Your task to perform on an android device: Find coffee shops on Maps Image 0: 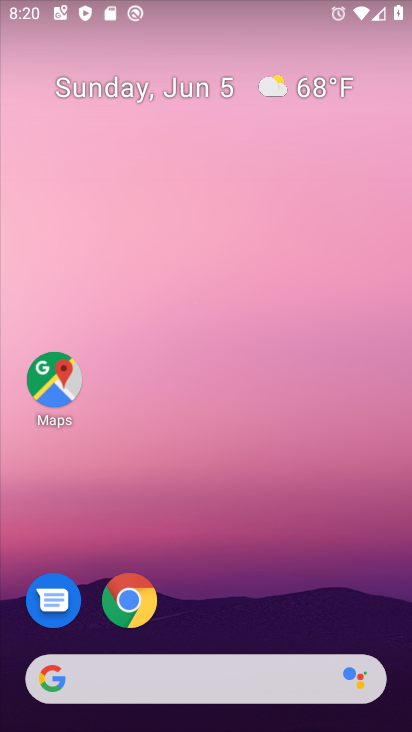
Step 0: drag from (341, 602) to (260, 18)
Your task to perform on an android device: Find coffee shops on Maps Image 1: 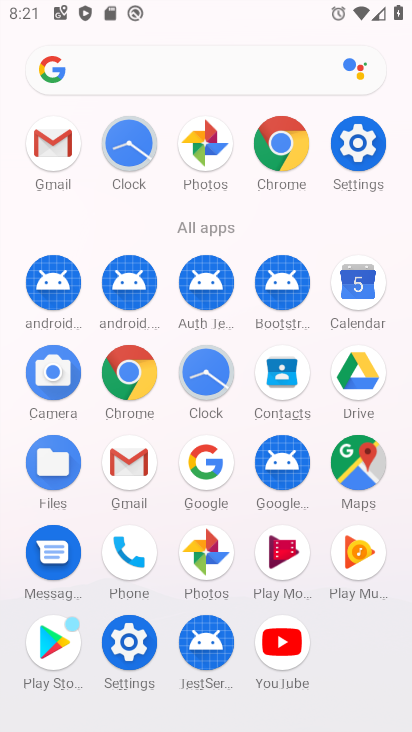
Step 1: click (351, 467)
Your task to perform on an android device: Find coffee shops on Maps Image 2: 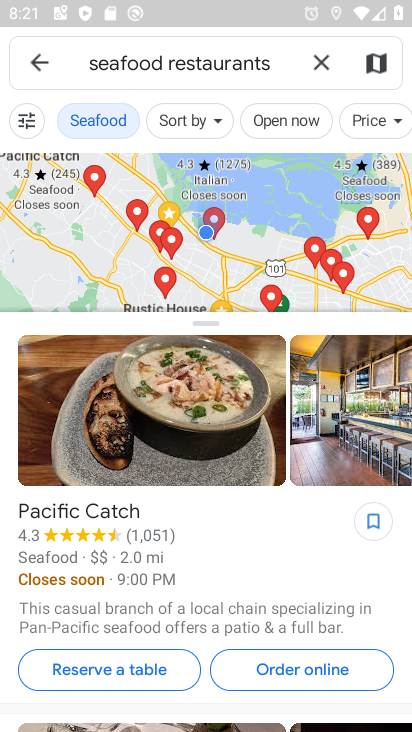
Step 2: click (315, 59)
Your task to perform on an android device: Find coffee shops on Maps Image 3: 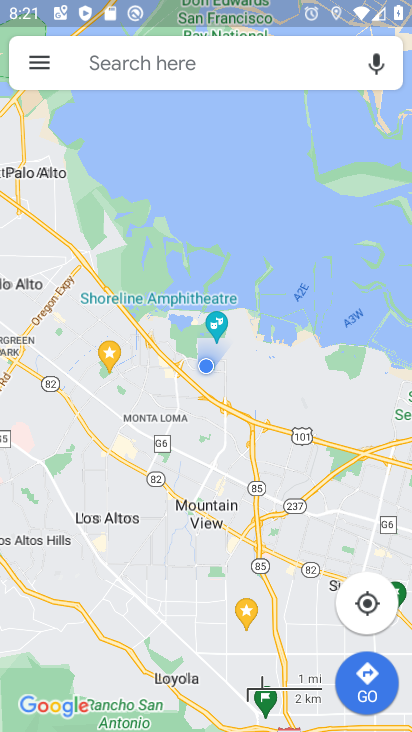
Step 3: click (108, 75)
Your task to perform on an android device: Find coffee shops on Maps Image 4: 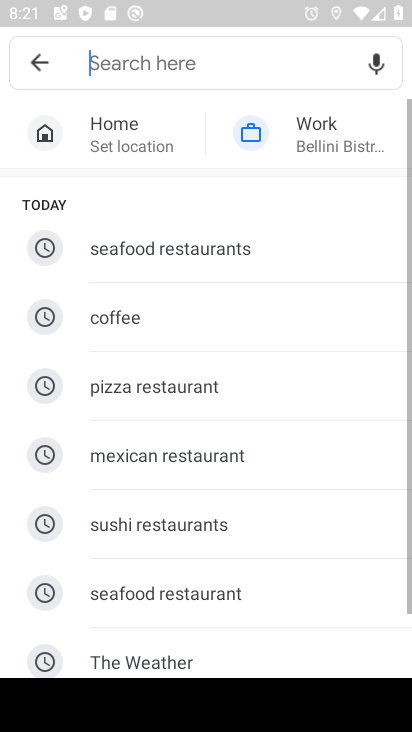
Step 4: click (206, 319)
Your task to perform on an android device: Find coffee shops on Maps Image 5: 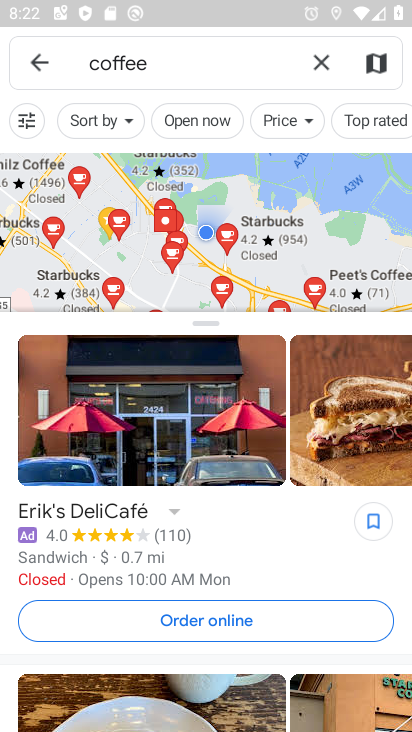
Step 5: task complete